Your task to perform on an android device: Open Amazon Image 0: 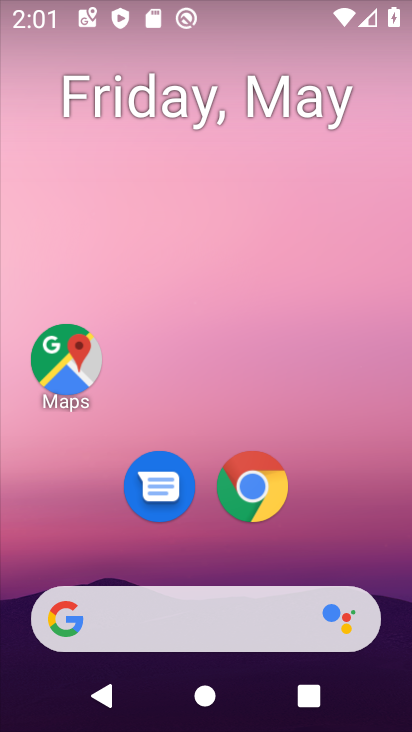
Step 0: click (249, 490)
Your task to perform on an android device: Open Amazon Image 1: 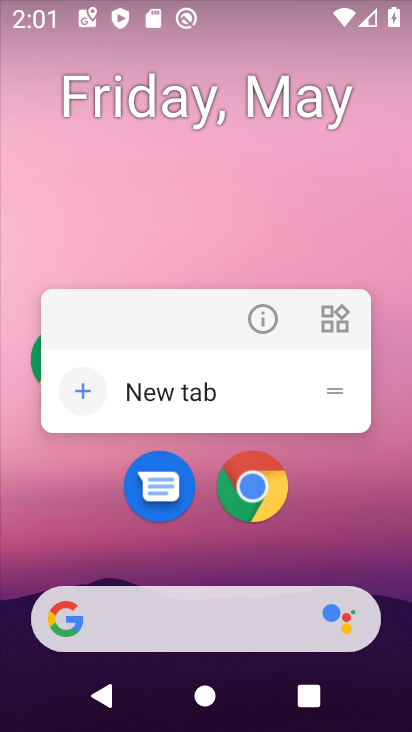
Step 1: click (250, 476)
Your task to perform on an android device: Open Amazon Image 2: 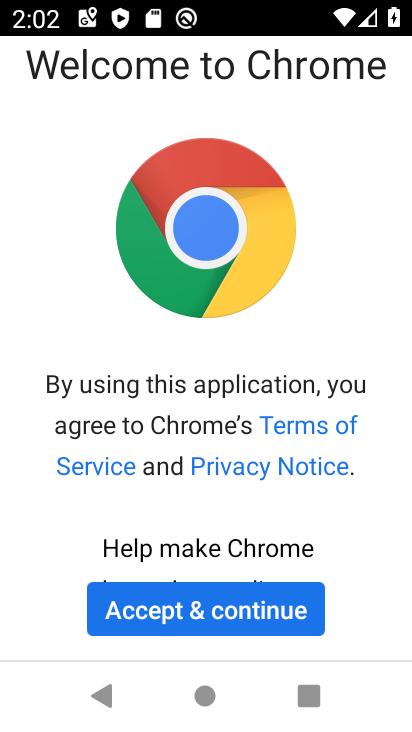
Step 2: click (216, 611)
Your task to perform on an android device: Open Amazon Image 3: 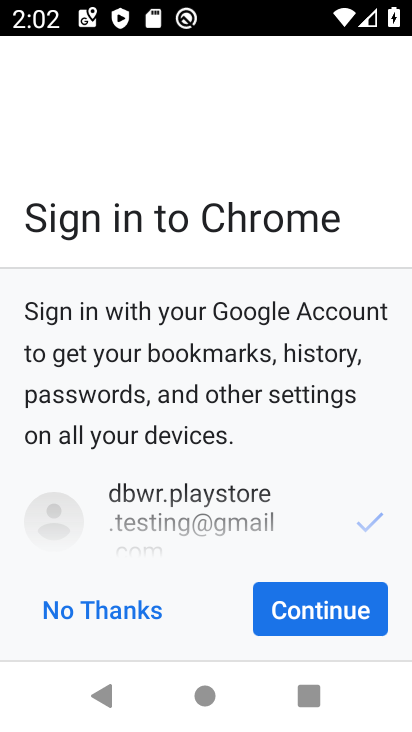
Step 3: click (300, 610)
Your task to perform on an android device: Open Amazon Image 4: 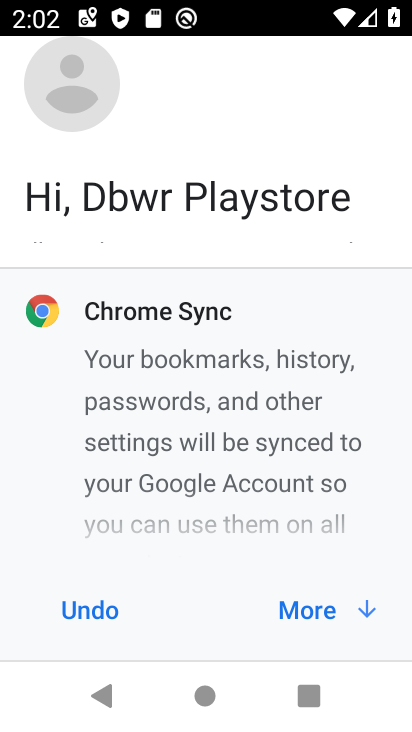
Step 4: click (300, 611)
Your task to perform on an android device: Open Amazon Image 5: 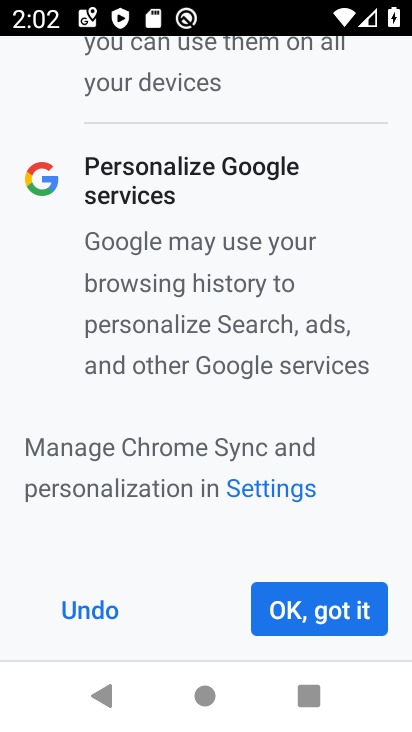
Step 5: click (300, 611)
Your task to perform on an android device: Open Amazon Image 6: 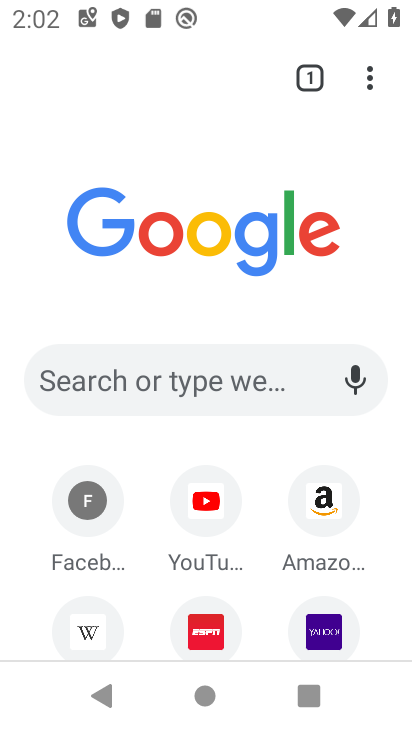
Step 6: click (157, 385)
Your task to perform on an android device: Open Amazon Image 7: 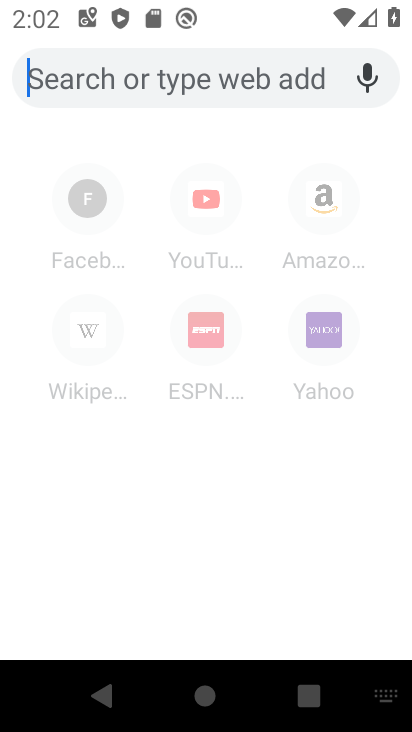
Step 7: type "Amazon"
Your task to perform on an android device: Open Amazon Image 8: 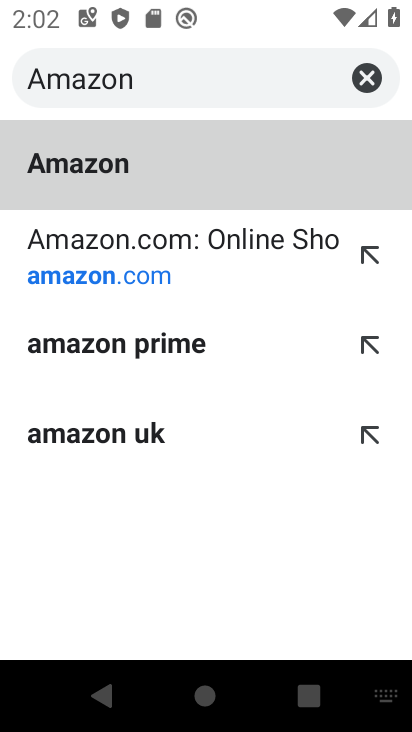
Step 8: click (113, 167)
Your task to perform on an android device: Open Amazon Image 9: 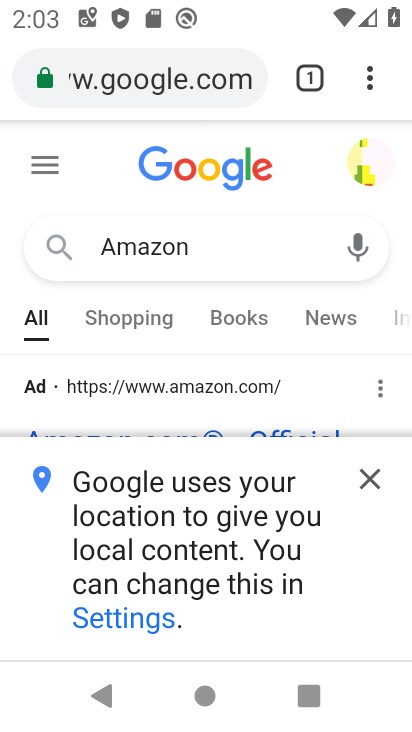
Step 9: task complete